Your task to perform on an android device: toggle improve location accuracy Image 0: 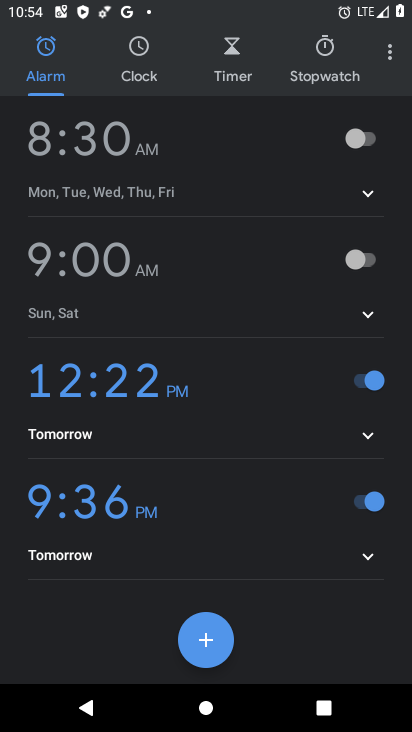
Step 0: press home button
Your task to perform on an android device: toggle improve location accuracy Image 1: 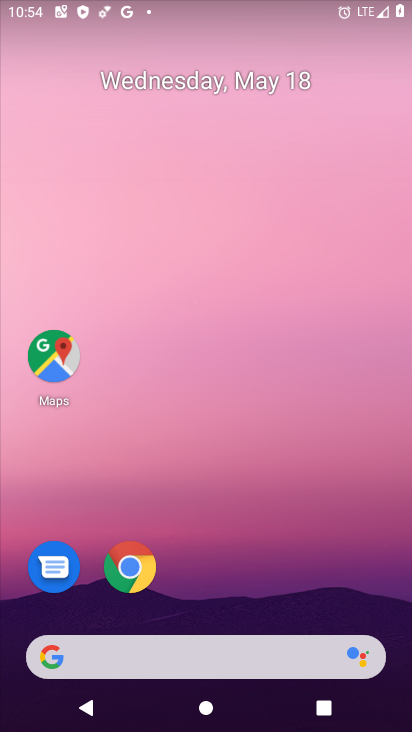
Step 1: drag from (215, 658) to (181, 149)
Your task to perform on an android device: toggle improve location accuracy Image 2: 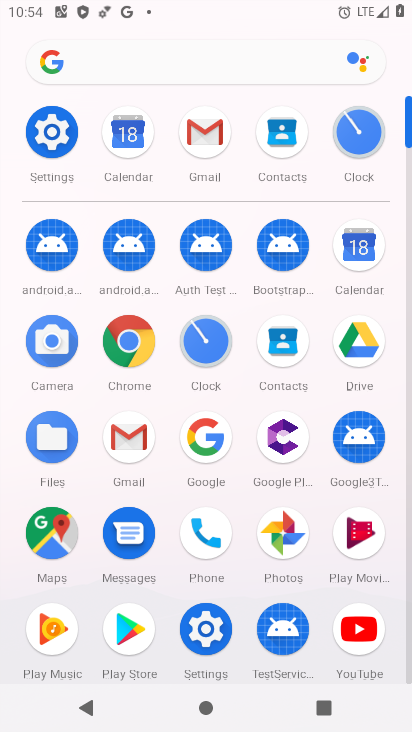
Step 2: click (50, 150)
Your task to perform on an android device: toggle improve location accuracy Image 3: 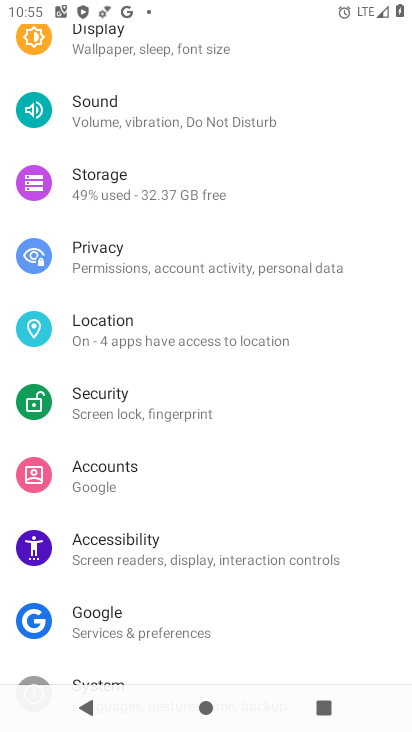
Step 3: click (108, 332)
Your task to perform on an android device: toggle improve location accuracy Image 4: 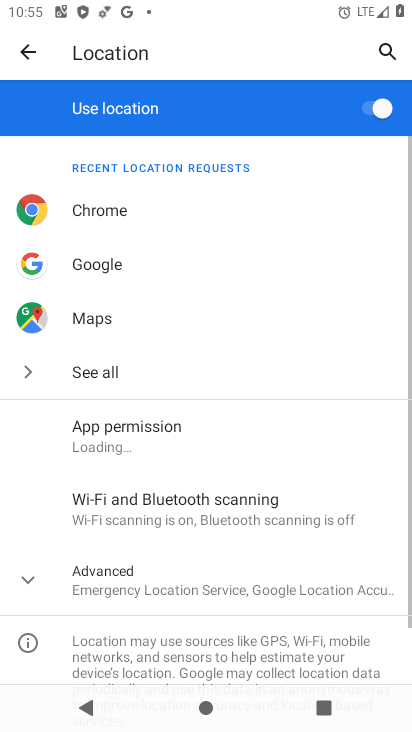
Step 4: drag from (169, 654) to (143, 90)
Your task to perform on an android device: toggle improve location accuracy Image 5: 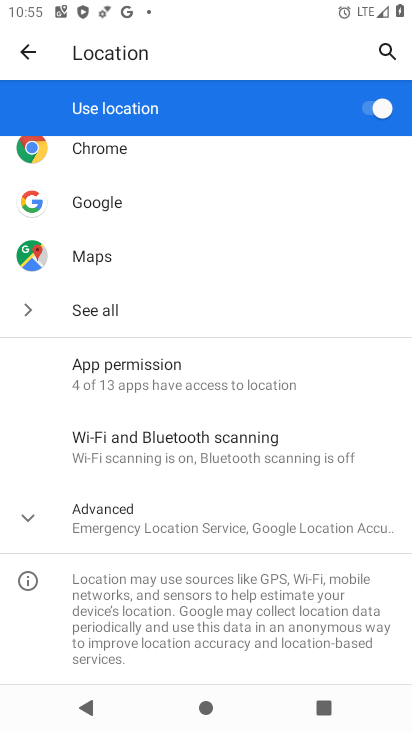
Step 5: click (117, 524)
Your task to perform on an android device: toggle improve location accuracy Image 6: 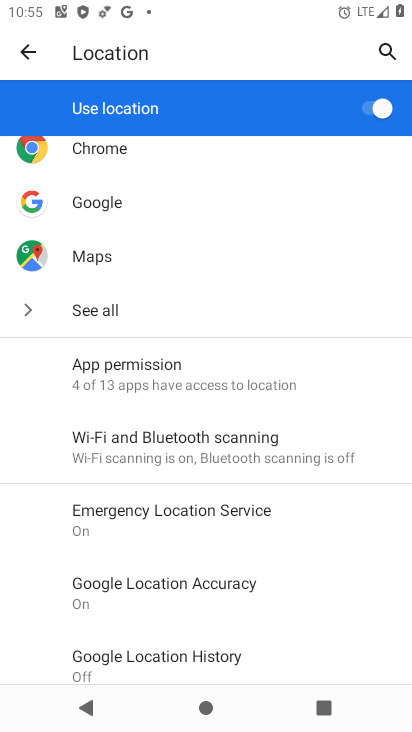
Step 6: click (137, 584)
Your task to perform on an android device: toggle improve location accuracy Image 7: 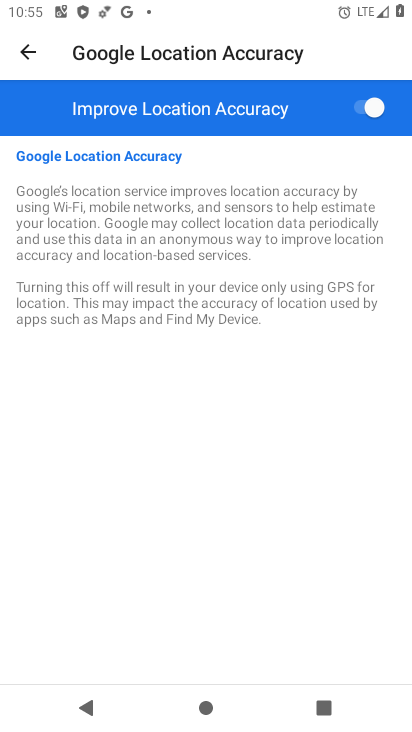
Step 7: click (367, 120)
Your task to perform on an android device: toggle improve location accuracy Image 8: 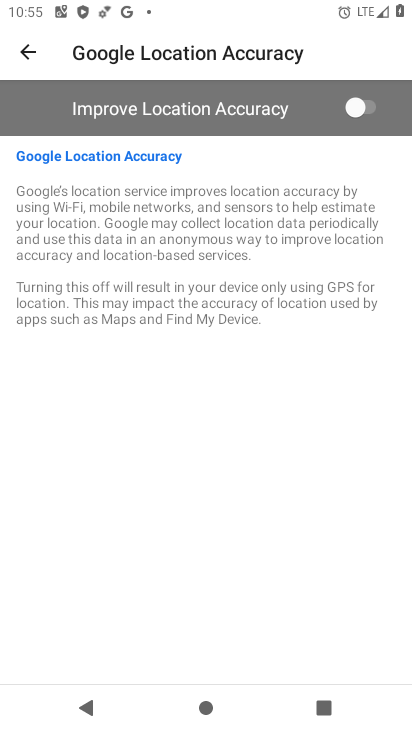
Step 8: task complete